Your task to perform on an android device: Go to calendar. Show me events next week Image 0: 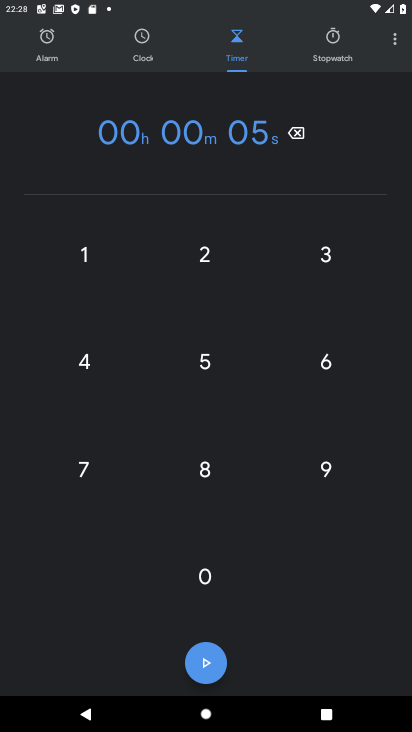
Step 0: press home button
Your task to perform on an android device: Go to calendar. Show me events next week Image 1: 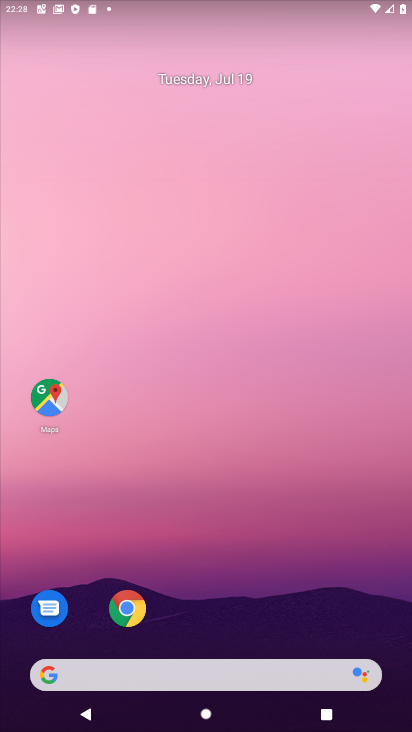
Step 1: drag from (311, 471) to (283, 3)
Your task to perform on an android device: Go to calendar. Show me events next week Image 2: 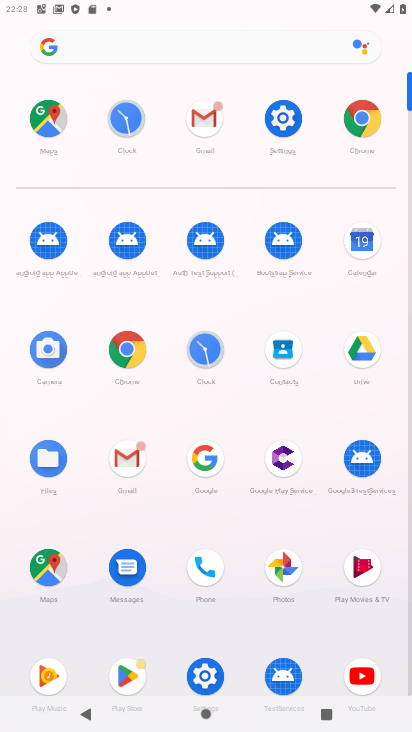
Step 2: click (364, 233)
Your task to perform on an android device: Go to calendar. Show me events next week Image 3: 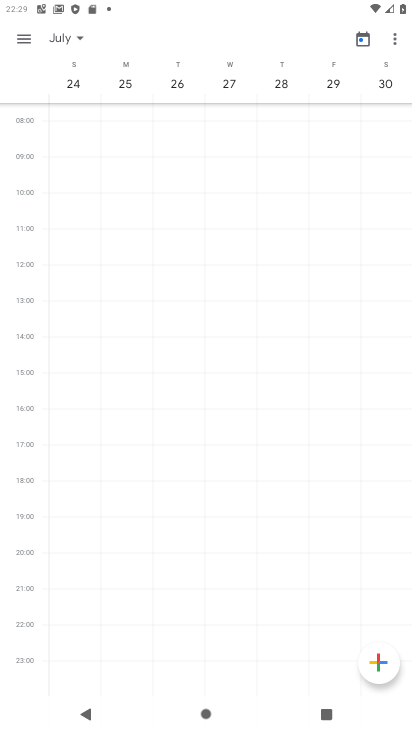
Step 3: task complete